Your task to perform on an android device: change notifications settings Image 0: 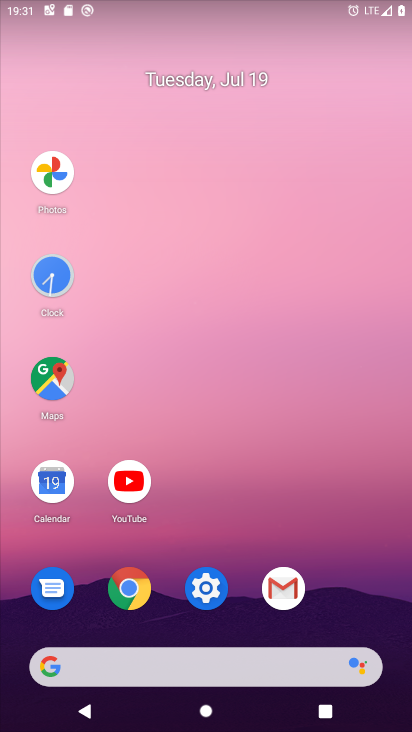
Step 0: click (198, 590)
Your task to perform on an android device: change notifications settings Image 1: 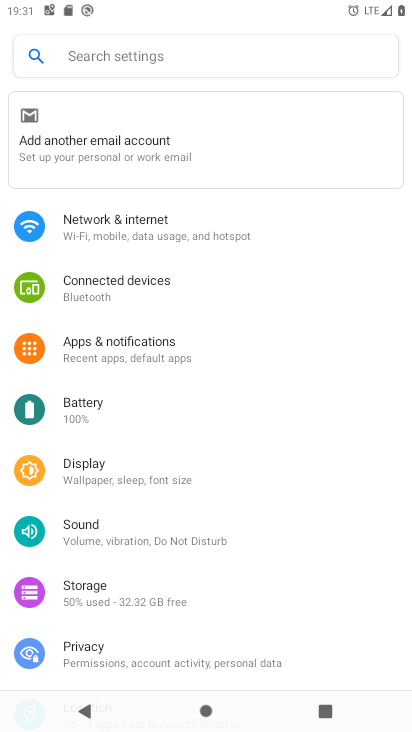
Step 1: click (126, 353)
Your task to perform on an android device: change notifications settings Image 2: 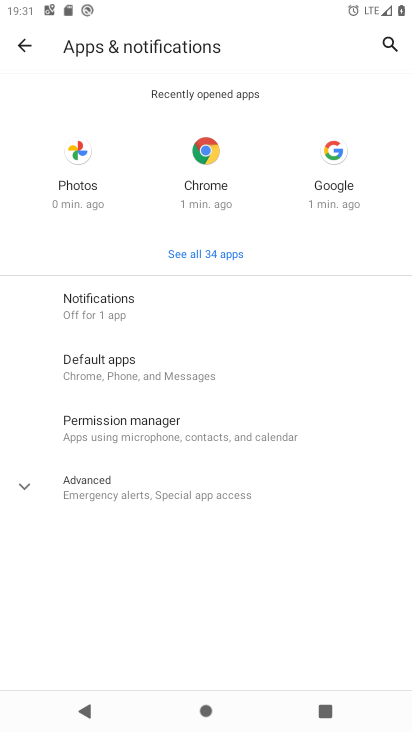
Step 2: click (106, 300)
Your task to perform on an android device: change notifications settings Image 3: 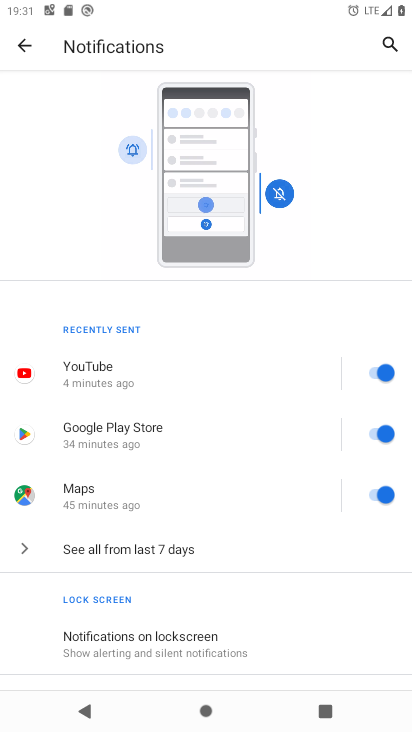
Step 3: click (100, 545)
Your task to perform on an android device: change notifications settings Image 4: 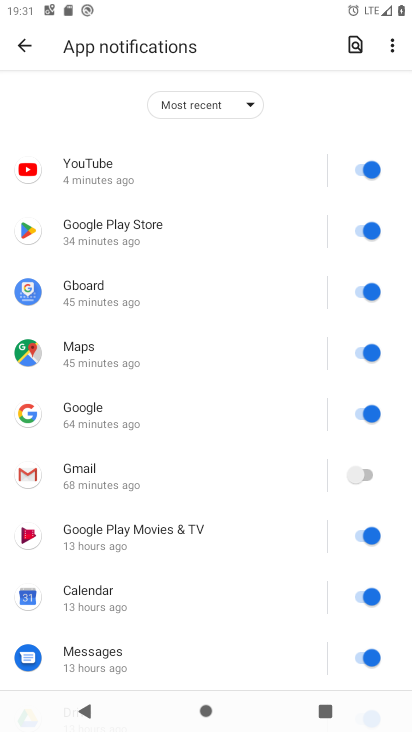
Step 4: click (253, 102)
Your task to perform on an android device: change notifications settings Image 5: 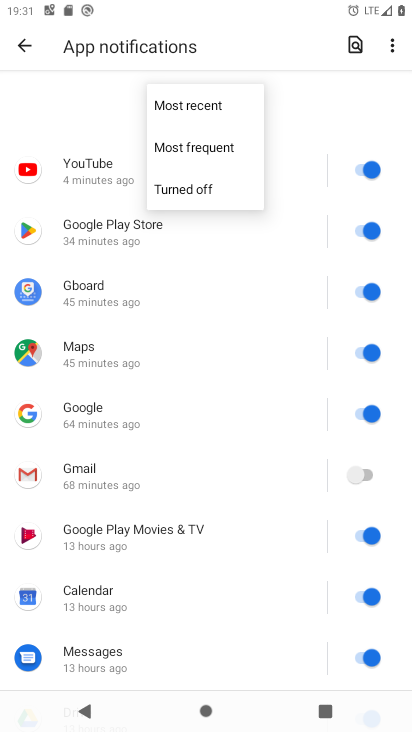
Step 5: click (193, 186)
Your task to perform on an android device: change notifications settings Image 6: 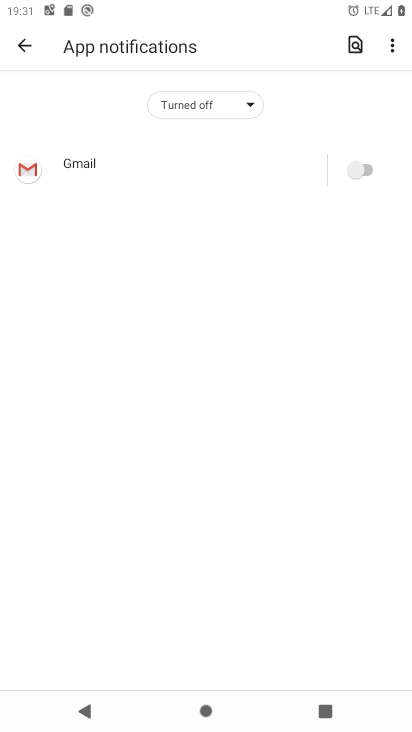
Step 6: task complete